Your task to perform on an android device: check the backup settings in the google photos Image 0: 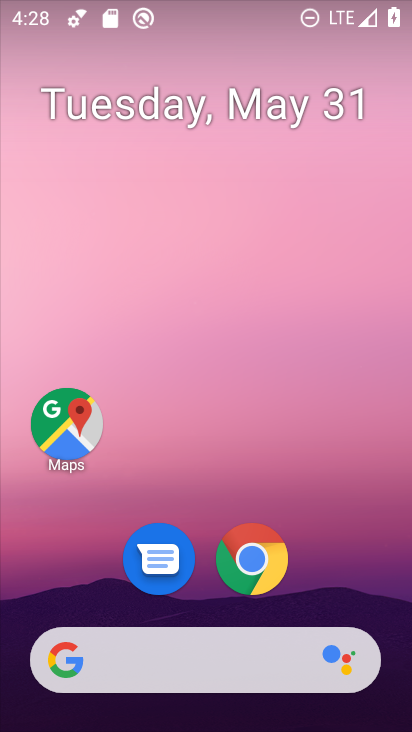
Step 0: drag from (209, 719) to (211, 81)
Your task to perform on an android device: check the backup settings in the google photos Image 1: 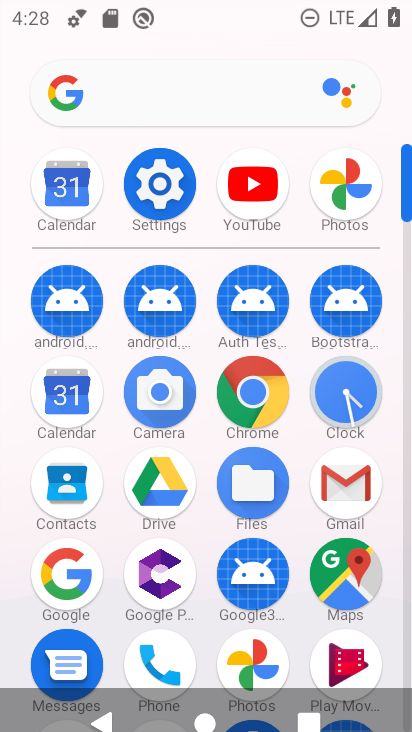
Step 1: click (244, 645)
Your task to perform on an android device: check the backup settings in the google photos Image 2: 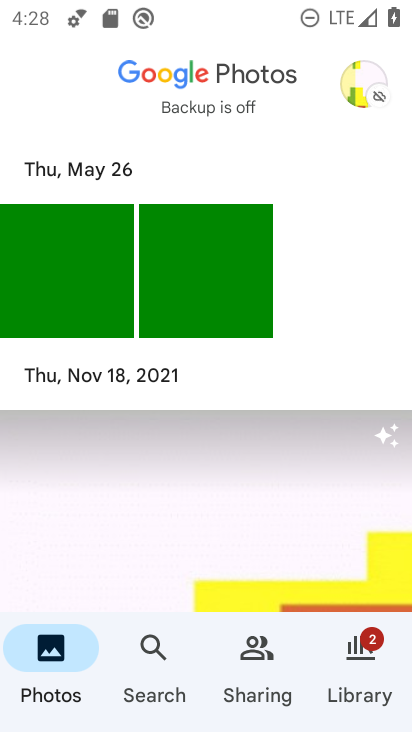
Step 2: click (366, 87)
Your task to perform on an android device: check the backup settings in the google photos Image 3: 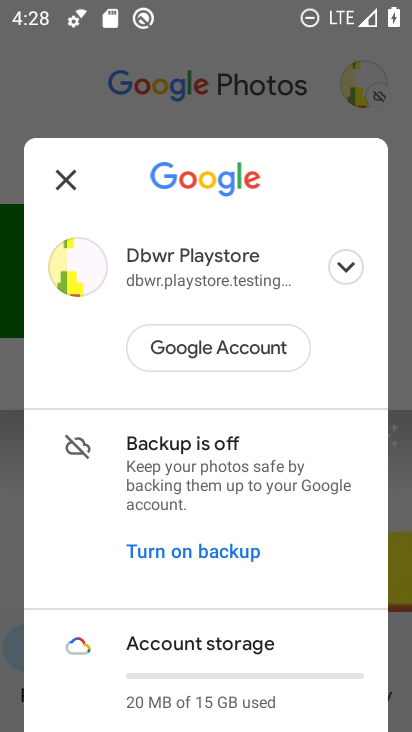
Step 3: drag from (173, 647) to (182, 425)
Your task to perform on an android device: check the backup settings in the google photos Image 4: 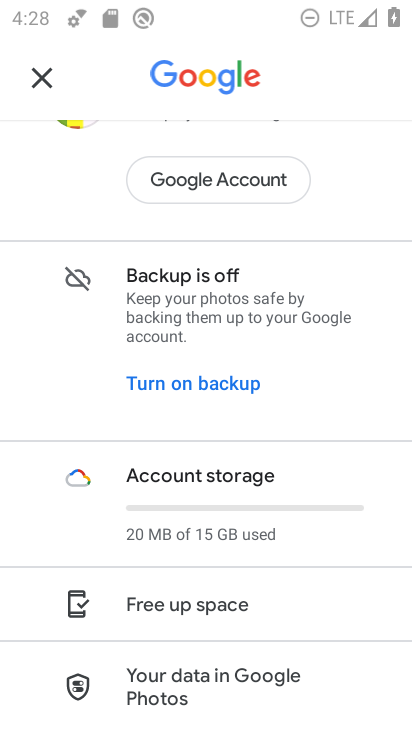
Step 4: click (182, 339)
Your task to perform on an android device: check the backup settings in the google photos Image 5: 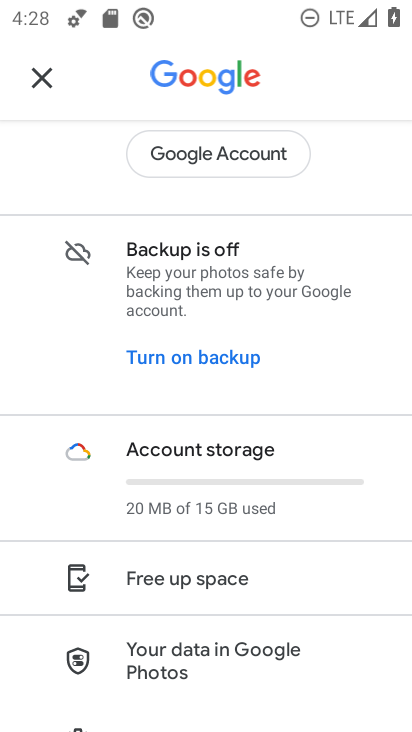
Step 5: drag from (186, 670) to (193, 443)
Your task to perform on an android device: check the backup settings in the google photos Image 6: 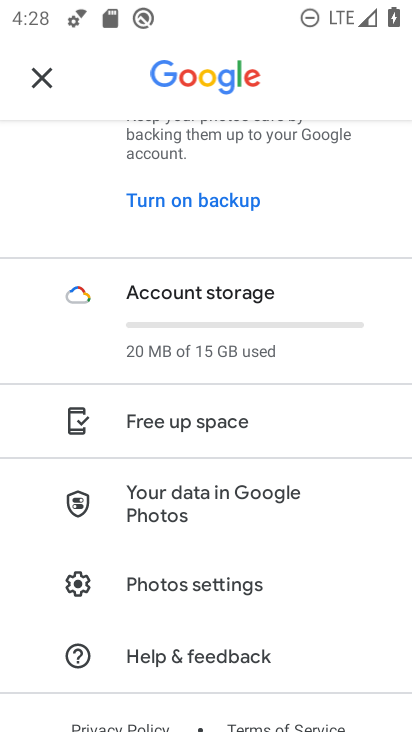
Step 6: drag from (195, 312) to (195, 265)
Your task to perform on an android device: check the backup settings in the google photos Image 7: 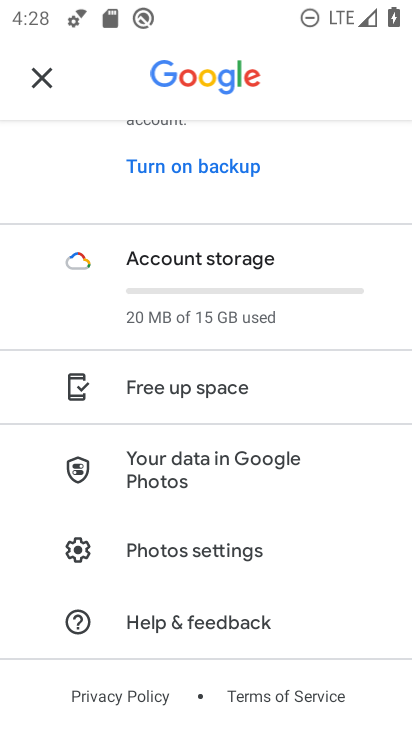
Step 7: click (199, 550)
Your task to perform on an android device: check the backup settings in the google photos Image 8: 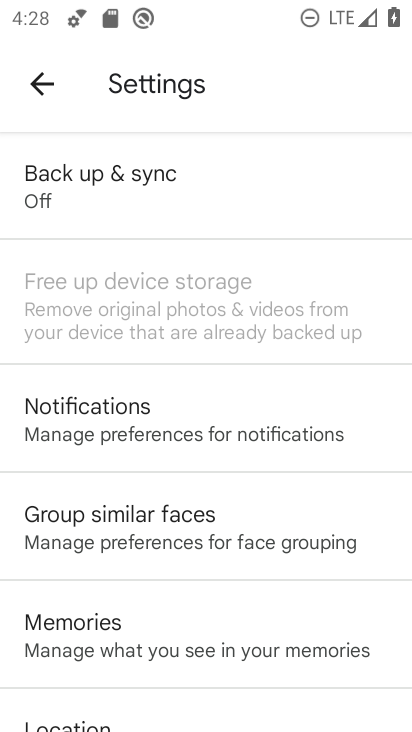
Step 8: drag from (136, 561) to (168, 231)
Your task to perform on an android device: check the backup settings in the google photos Image 9: 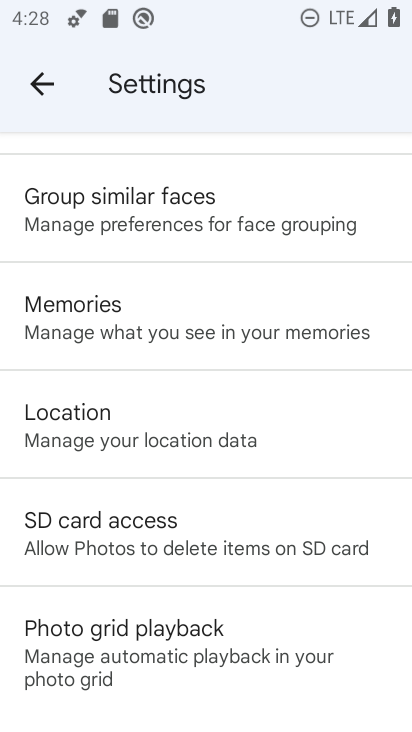
Step 9: drag from (230, 168) to (231, 592)
Your task to perform on an android device: check the backup settings in the google photos Image 10: 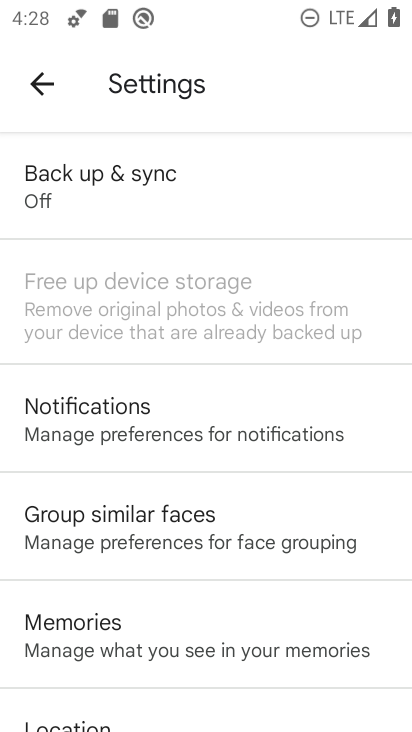
Step 10: click (98, 179)
Your task to perform on an android device: check the backup settings in the google photos Image 11: 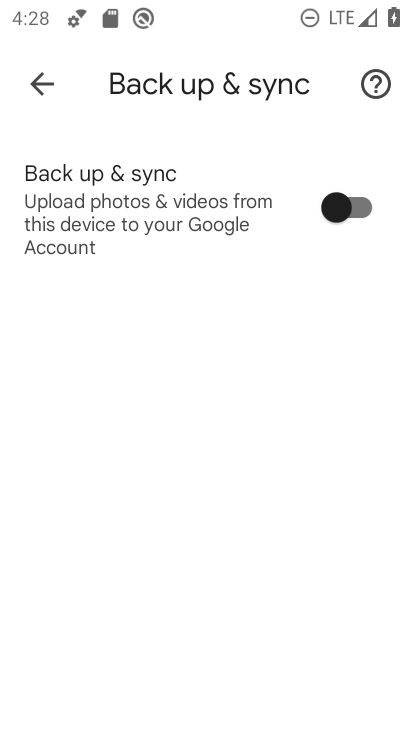
Step 11: task complete